Your task to perform on an android device: Clear the cart on walmart. Add "razer blackwidow" to the cart on walmart, then select checkout. Image 0: 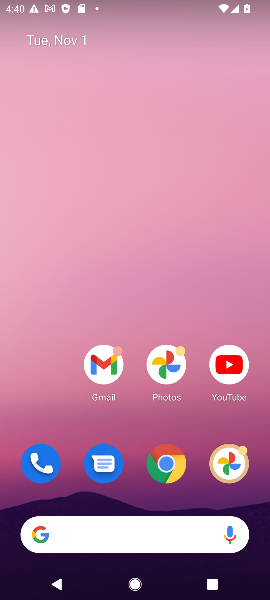
Step 0: click (167, 468)
Your task to perform on an android device: Clear the cart on walmart. Add "razer blackwidow" to the cart on walmart, then select checkout. Image 1: 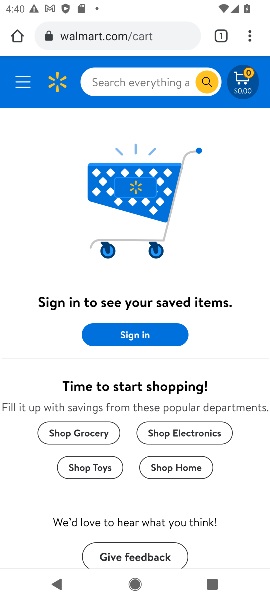
Step 1: click (244, 81)
Your task to perform on an android device: Clear the cart on walmart. Add "razer blackwidow" to the cart on walmart, then select checkout. Image 2: 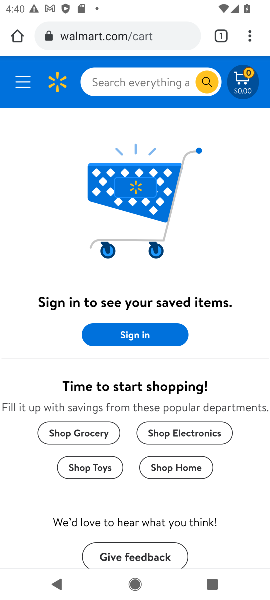
Step 2: click (130, 82)
Your task to perform on an android device: Clear the cart on walmart. Add "razer blackwidow" to the cart on walmart, then select checkout. Image 3: 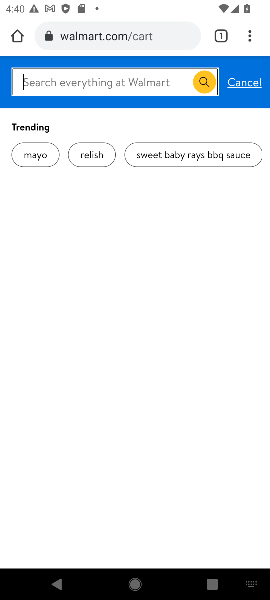
Step 3: click (56, 77)
Your task to perform on an android device: Clear the cart on walmart. Add "razer blackwidow" to the cart on walmart, then select checkout. Image 4: 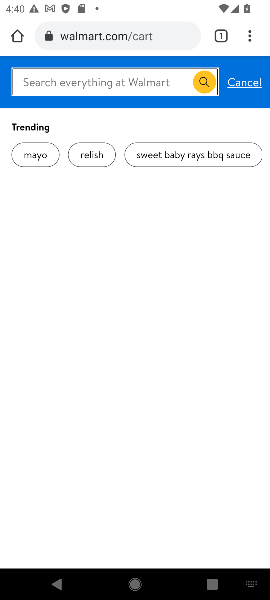
Step 4: type "razer blackwidow"
Your task to perform on an android device: Clear the cart on walmart. Add "razer blackwidow" to the cart on walmart, then select checkout. Image 5: 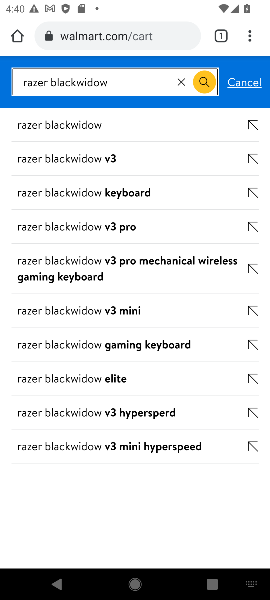
Step 5: press enter
Your task to perform on an android device: Clear the cart on walmart. Add "razer blackwidow" to the cart on walmart, then select checkout. Image 6: 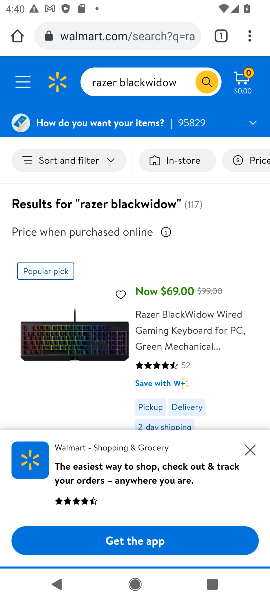
Step 6: click (71, 336)
Your task to perform on an android device: Clear the cart on walmart. Add "razer blackwidow" to the cart on walmart, then select checkout. Image 7: 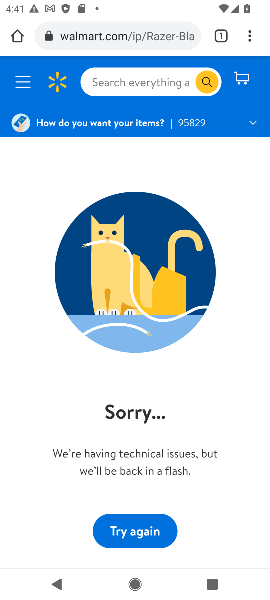
Step 7: click (135, 532)
Your task to perform on an android device: Clear the cart on walmart. Add "razer blackwidow" to the cart on walmart, then select checkout. Image 8: 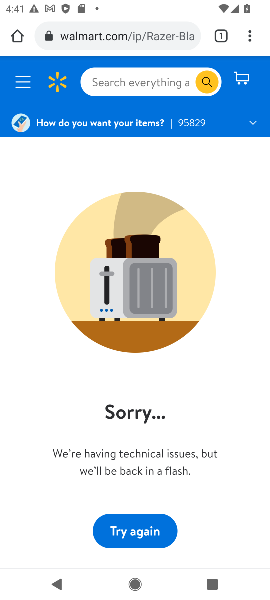
Step 8: click (135, 532)
Your task to perform on an android device: Clear the cart on walmart. Add "razer blackwidow" to the cart on walmart, then select checkout. Image 9: 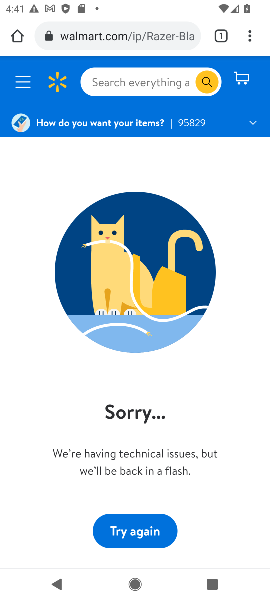
Step 9: press back button
Your task to perform on an android device: Clear the cart on walmart. Add "razer blackwidow" to the cart on walmart, then select checkout. Image 10: 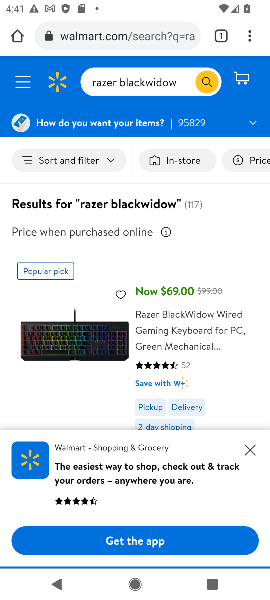
Step 10: click (250, 449)
Your task to perform on an android device: Clear the cart on walmart. Add "razer blackwidow" to the cart on walmart, then select checkout. Image 11: 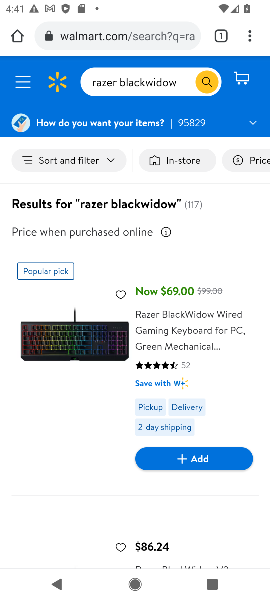
Step 11: click (76, 338)
Your task to perform on an android device: Clear the cart on walmart. Add "razer blackwidow" to the cart on walmart, then select checkout. Image 12: 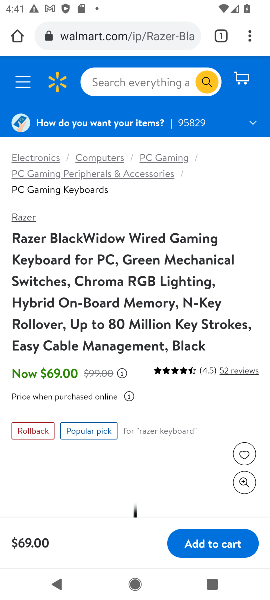
Step 12: click (203, 545)
Your task to perform on an android device: Clear the cart on walmart. Add "razer blackwidow" to the cart on walmart, then select checkout. Image 13: 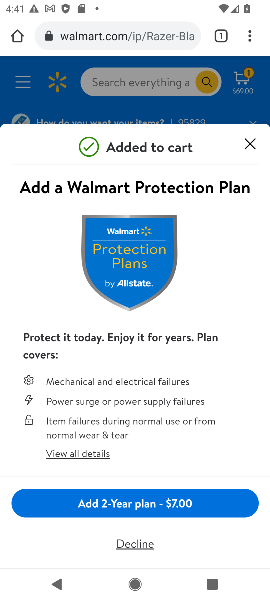
Step 13: click (248, 144)
Your task to perform on an android device: Clear the cart on walmart. Add "razer blackwidow" to the cart on walmart, then select checkout. Image 14: 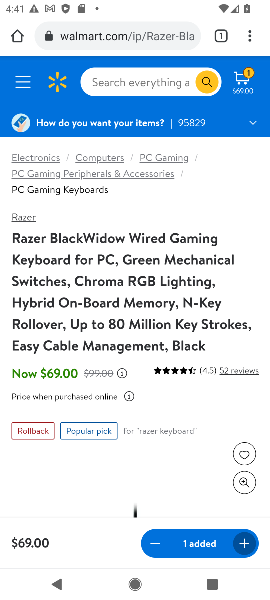
Step 14: click (246, 84)
Your task to perform on an android device: Clear the cart on walmart. Add "razer blackwidow" to the cart on walmart, then select checkout. Image 15: 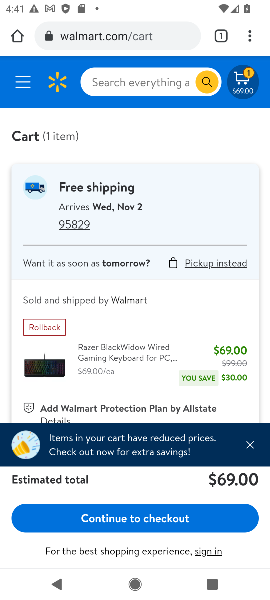
Step 15: click (127, 519)
Your task to perform on an android device: Clear the cart on walmart. Add "razer blackwidow" to the cart on walmart, then select checkout. Image 16: 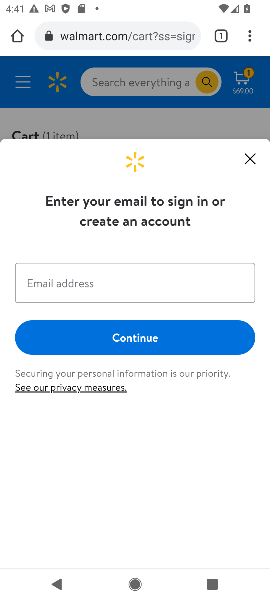
Step 16: task complete